Your task to perform on an android device: uninstall "Google Maps" Image 0: 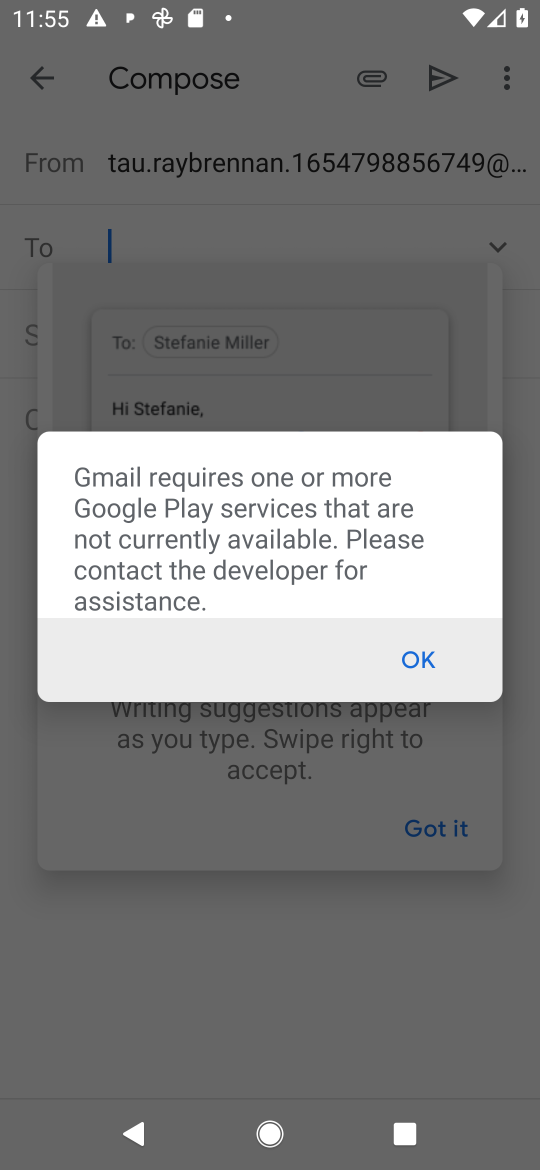
Step 0: press home button
Your task to perform on an android device: uninstall "Google Maps" Image 1: 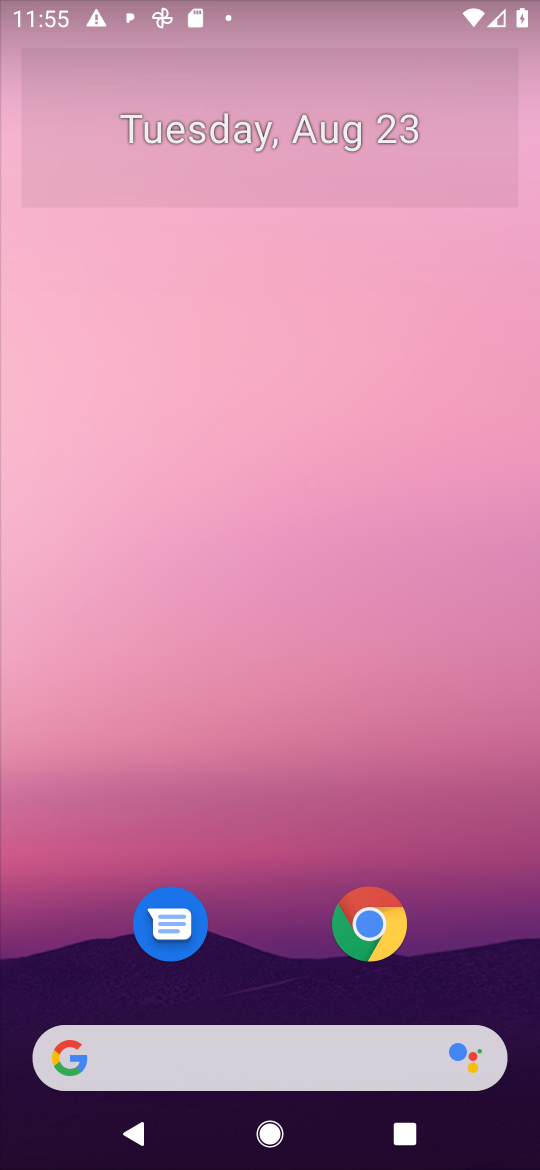
Step 1: drag from (468, 962) to (462, 117)
Your task to perform on an android device: uninstall "Google Maps" Image 2: 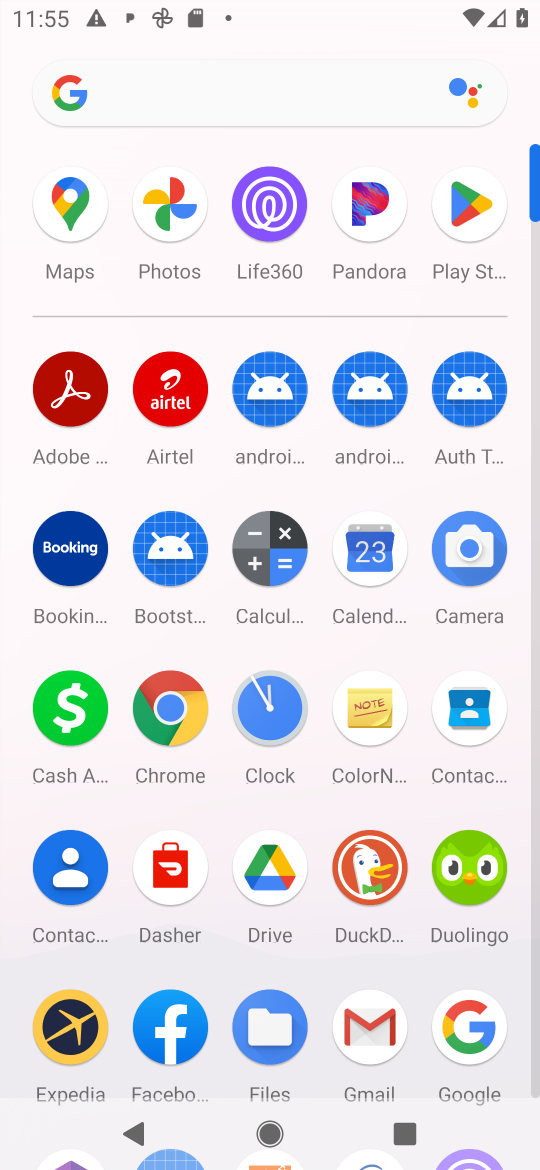
Step 2: click (462, 205)
Your task to perform on an android device: uninstall "Google Maps" Image 3: 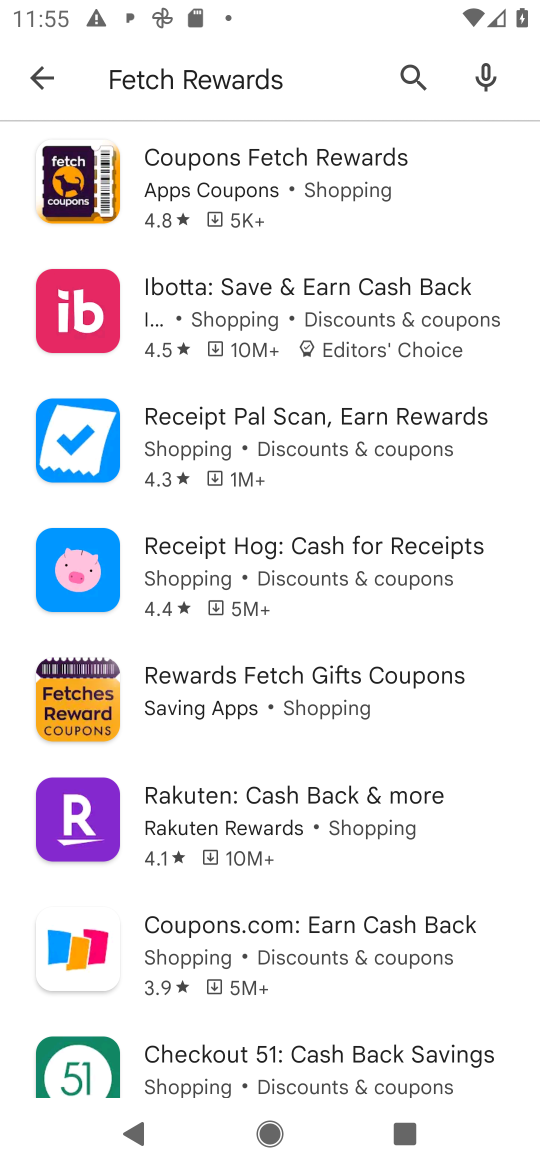
Step 3: press back button
Your task to perform on an android device: uninstall "Google Maps" Image 4: 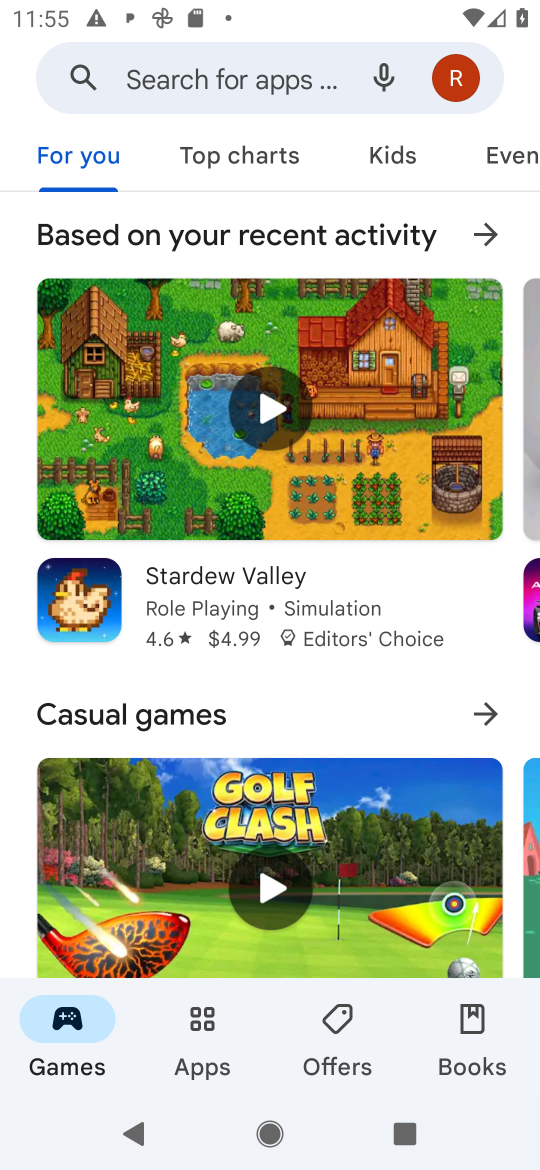
Step 4: click (250, 79)
Your task to perform on an android device: uninstall "Google Maps" Image 5: 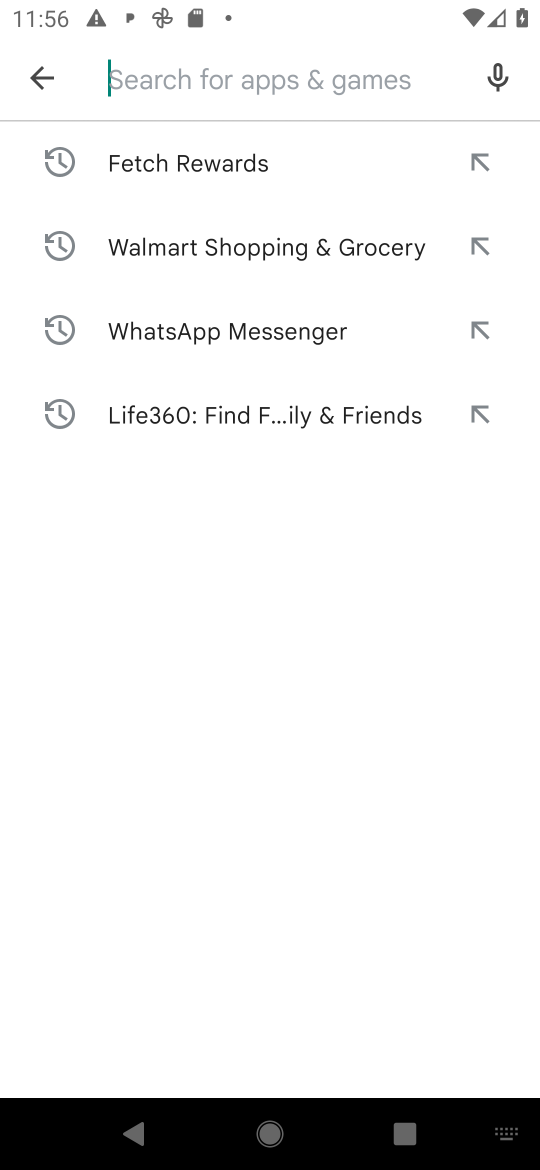
Step 5: press enter
Your task to perform on an android device: uninstall "Google Maps" Image 6: 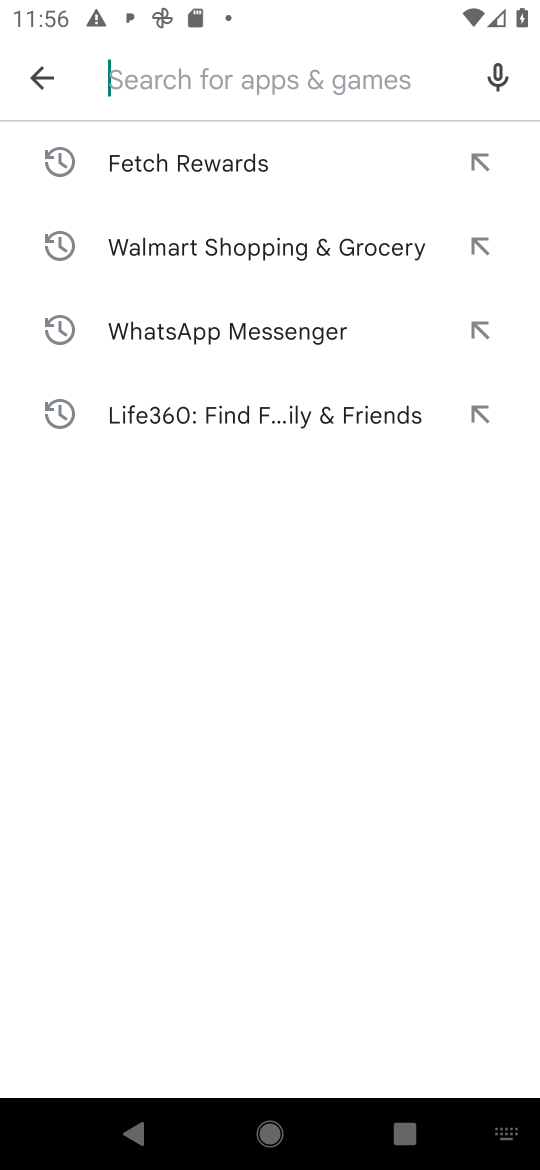
Step 6: type "Google Maps"
Your task to perform on an android device: uninstall "Google Maps" Image 7: 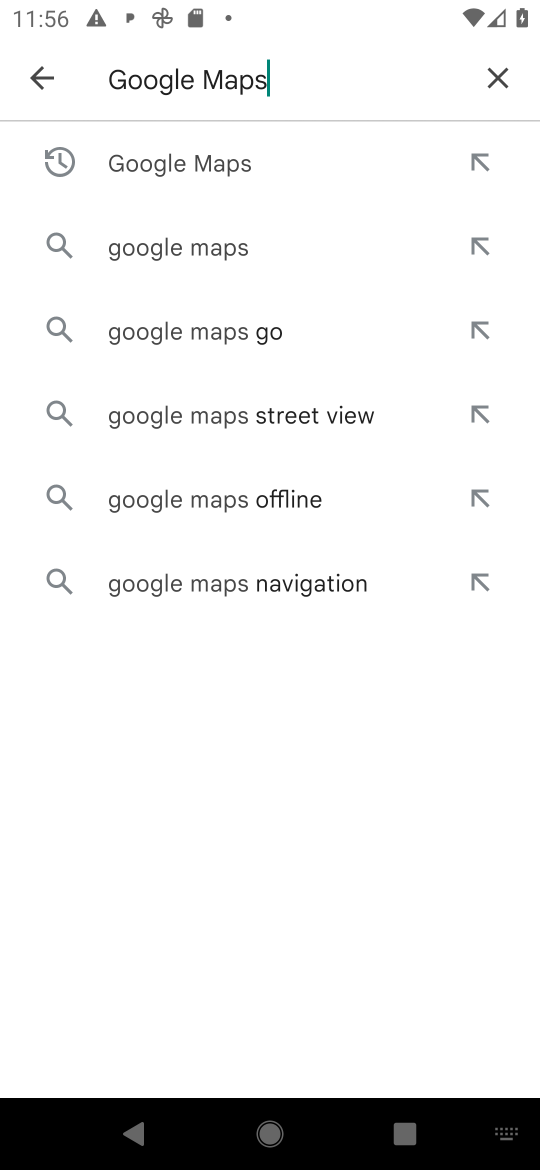
Step 7: click (183, 164)
Your task to perform on an android device: uninstall "Google Maps" Image 8: 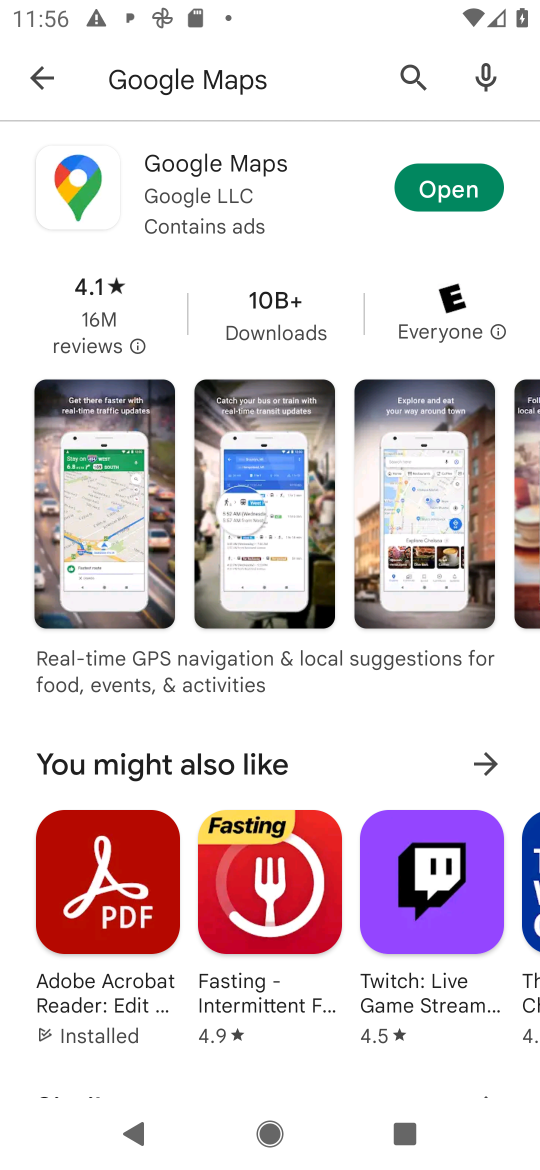
Step 8: task complete